Your task to perform on an android device: open chrome and create a bookmark for the current page Image 0: 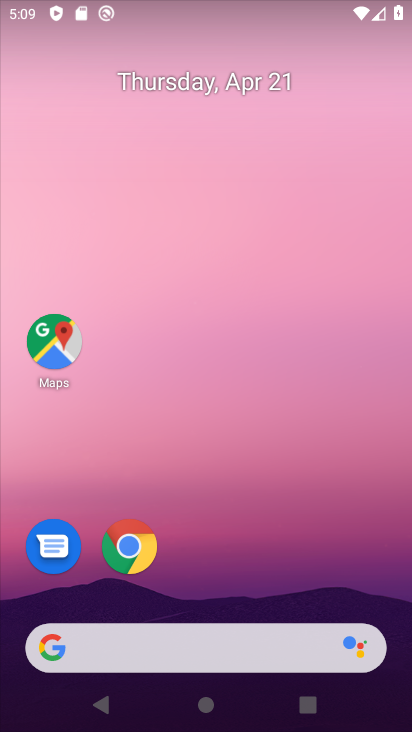
Step 0: drag from (309, 584) to (289, 104)
Your task to perform on an android device: open chrome and create a bookmark for the current page Image 1: 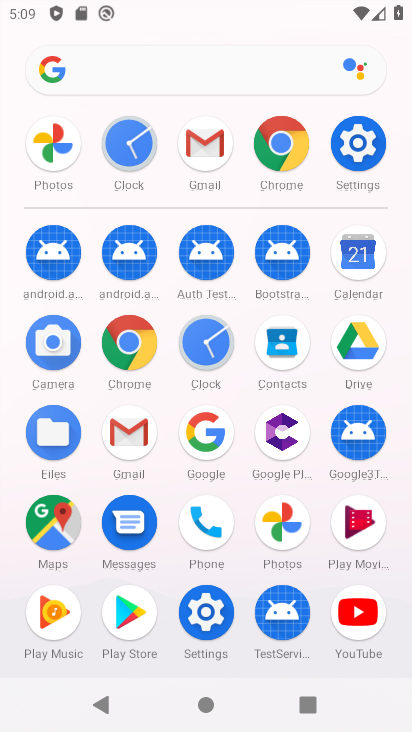
Step 1: click (284, 135)
Your task to perform on an android device: open chrome and create a bookmark for the current page Image 2: 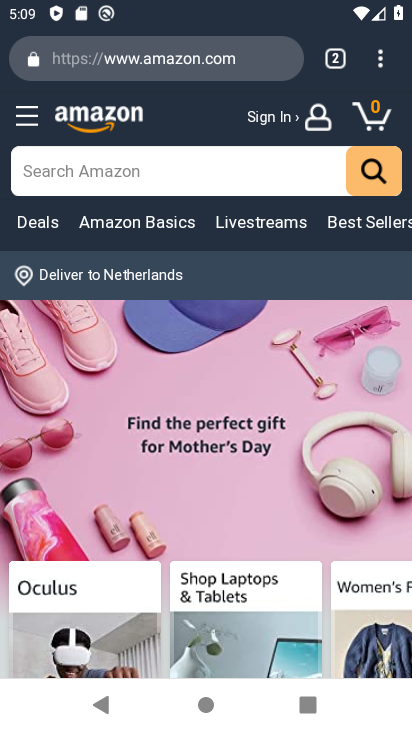
Step 2: click (385, 57)
Your task to perform on an android device: open chrome and create a bookmark for the current page Image 3: 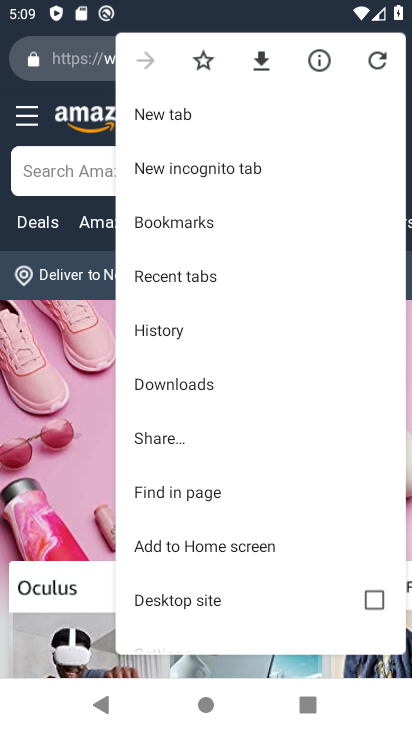
Step 3: click (199, 62)
Your task to perform on an android device: open chrome and create a bookmark for the current page Image 4: 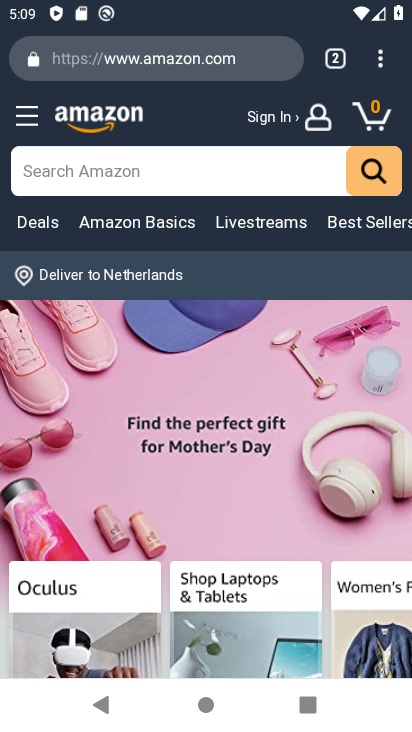
Step 4: task complete